Your task to perform on an android device: Search for cool wooden wall art on Etsy. Image 0: 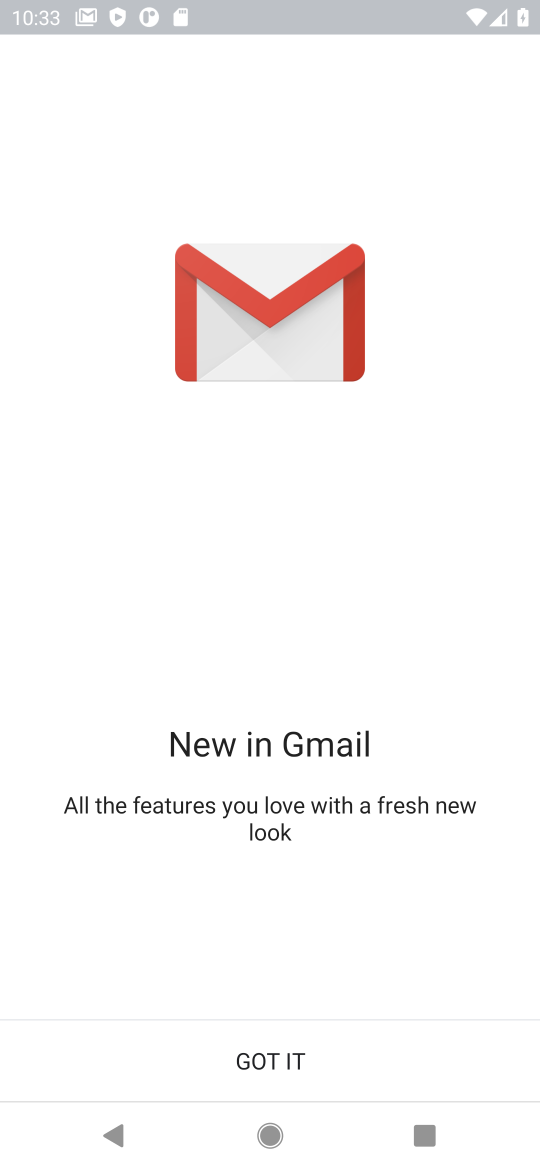
Step 0: click (265, 1057)
Your task to perform on an android device: Search for cool wooden wall art on Etsy. Image 1: 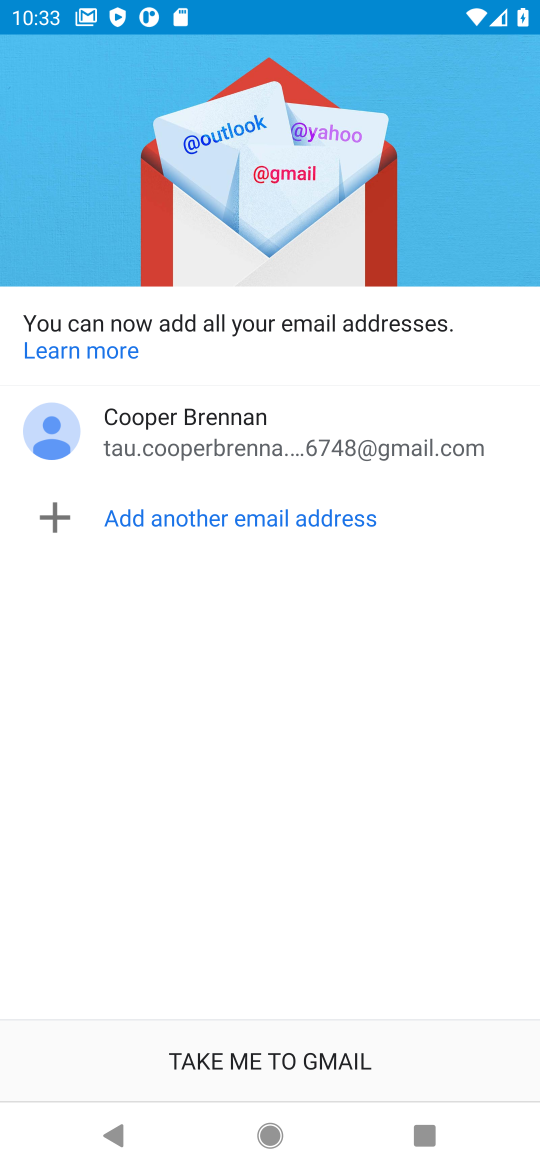
Step 1: click (264, 1058)
Your task to perform on an android device: Search for cool wooden wall art on Etsy. Image 2: 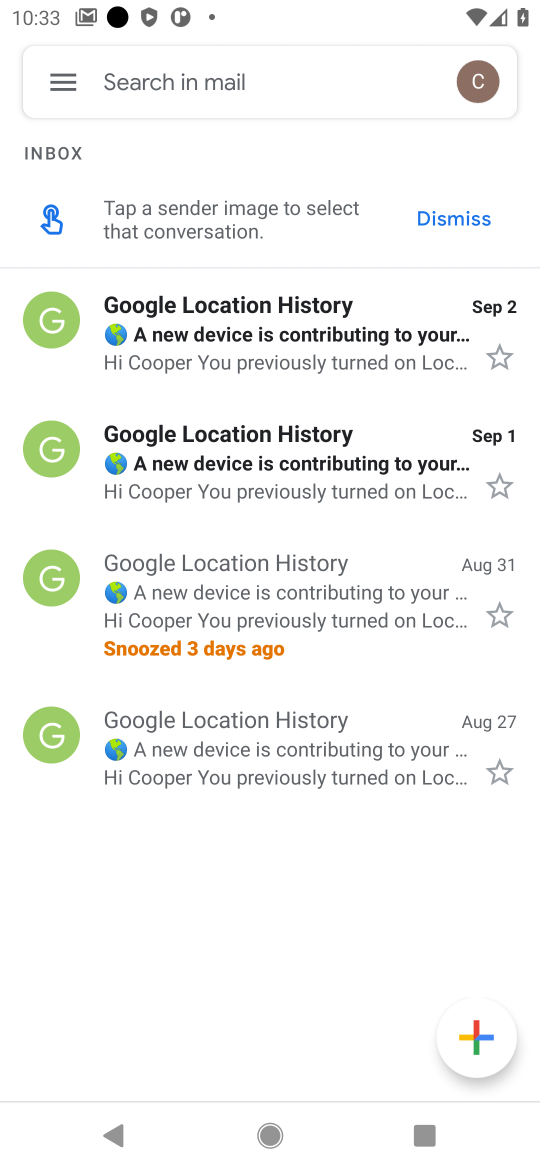
Step 2: press home button
Your task to perform on an android device: Search for cool wooden wall art on Etsy. Image 3: 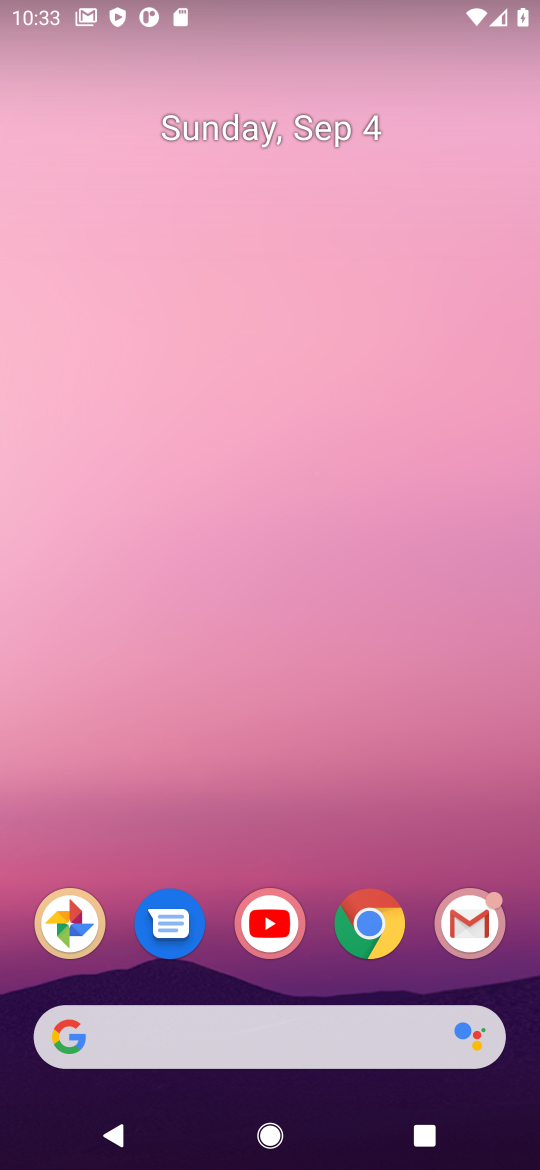
Step 3: click (134, 1034)
Your task to perform on an android device: Search for cool wooden wall art on Etsy. Image 4: 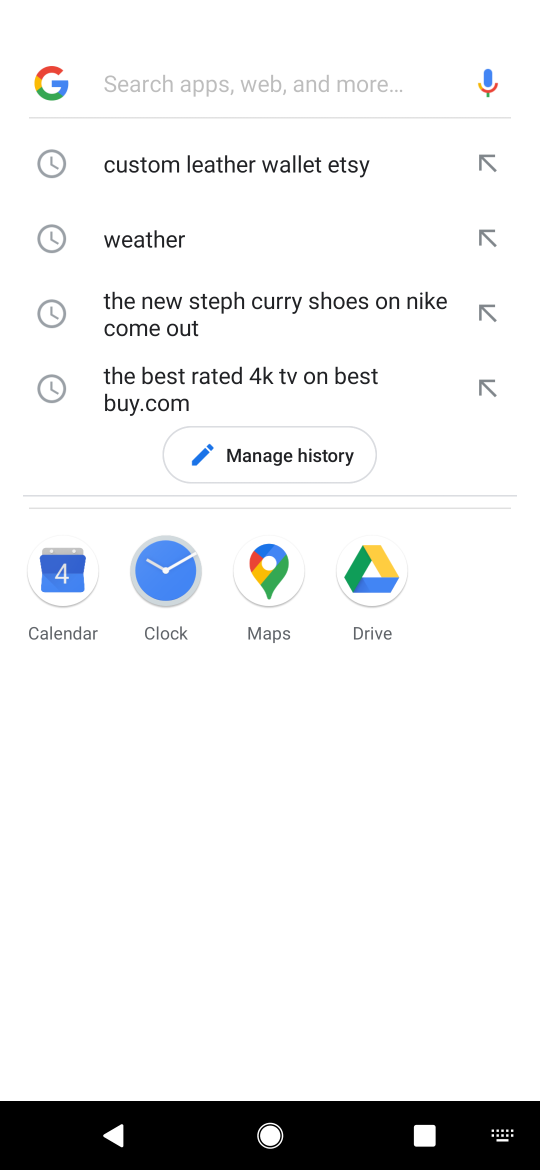
Step 4: type "cool wooden wall art on Etsy"
Your task to perform on an android device: Search for cool wooden wall art on Etsy. Image 5: 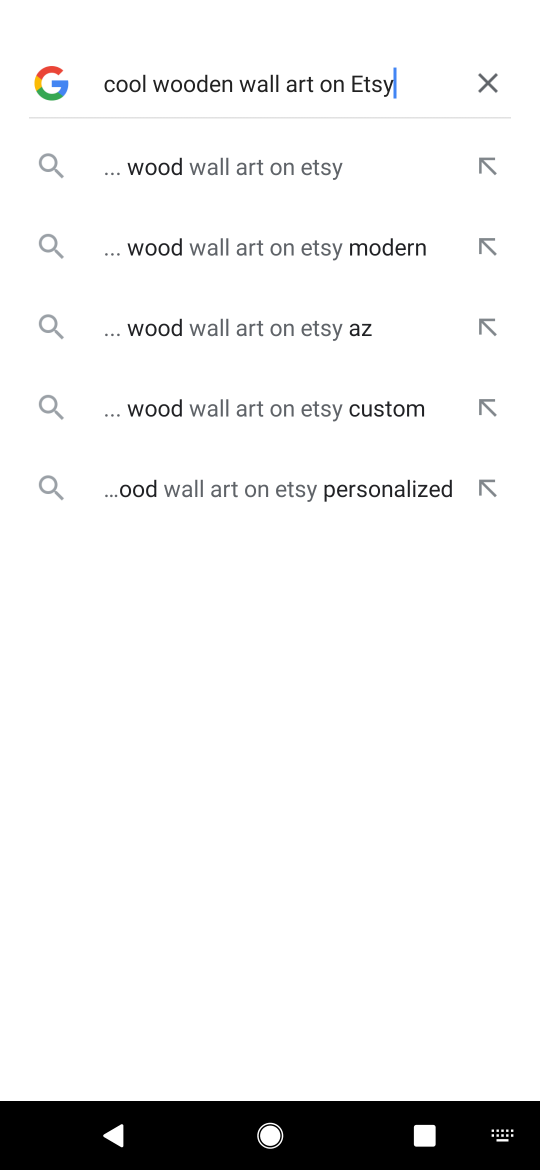
Step 5: click (221, 168)
Your task to perform on an android device: Search for cool wooden wall art on Etsy. Image 6: 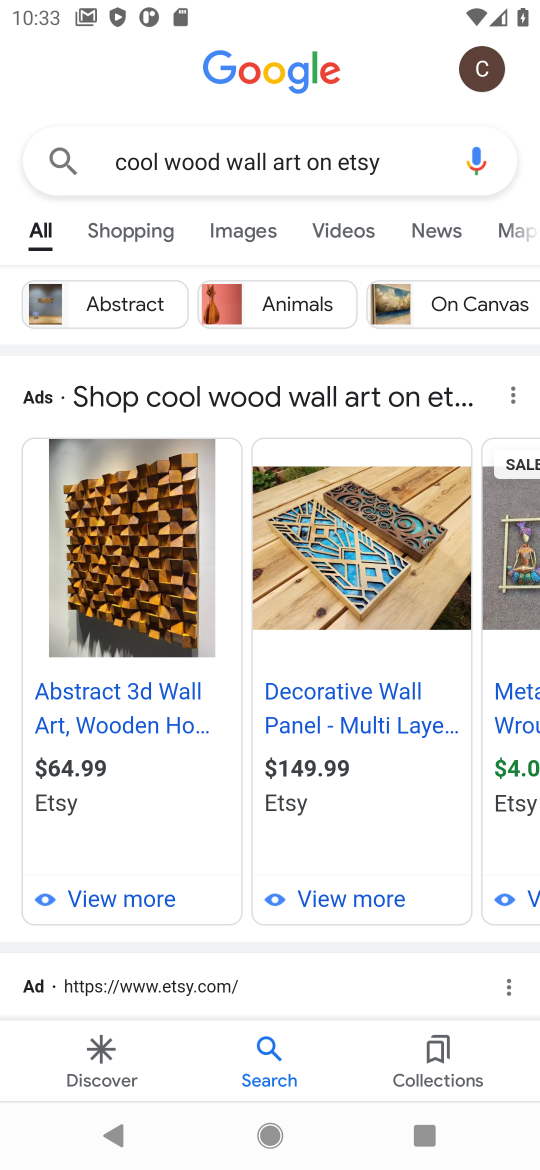
Step 6: drag from (22, 897) to (216, 489)
Your task to perform on an android device: Search for cool wooden wall art on Etsy. Image 7: 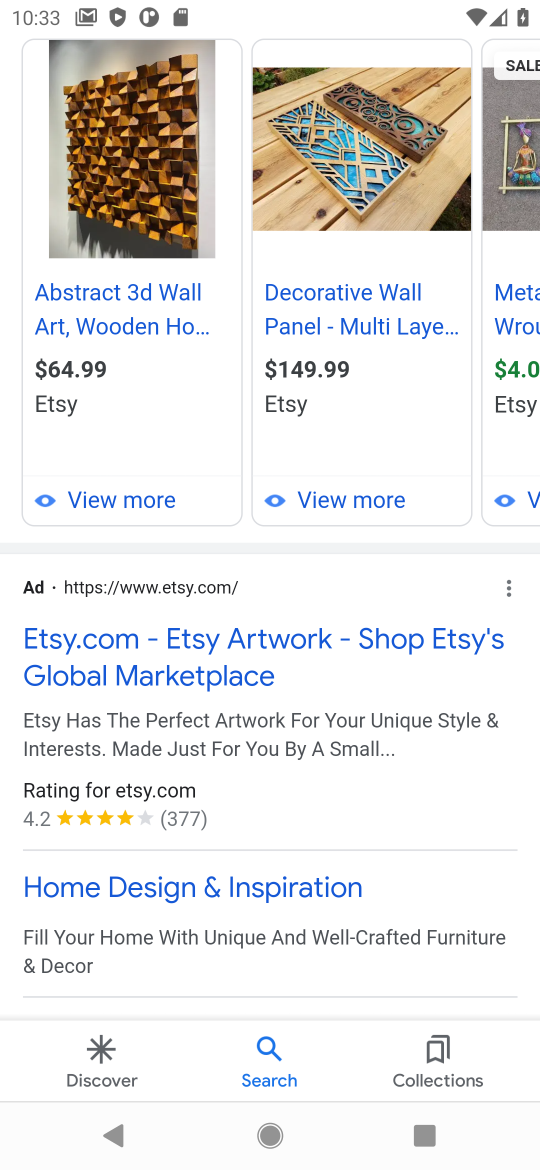
Step 7: click (207, 515)
Your task to perform on an android device: Search for cool wooden wall art on Etsy. Image 8: 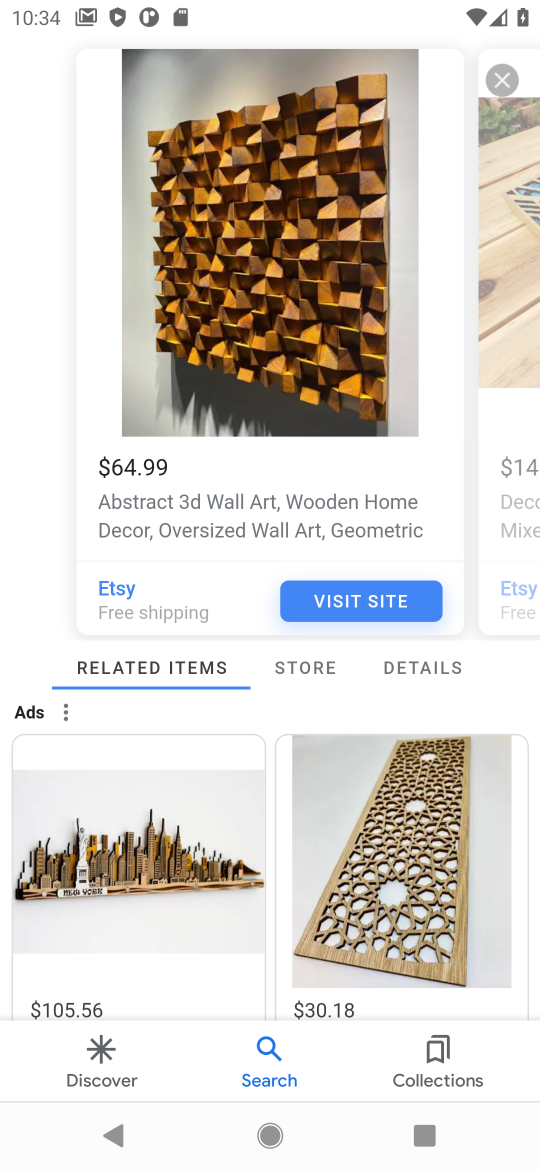
Step 8: task complete